Your task to perform on an android device: toggle improve location accuracy Image 0: 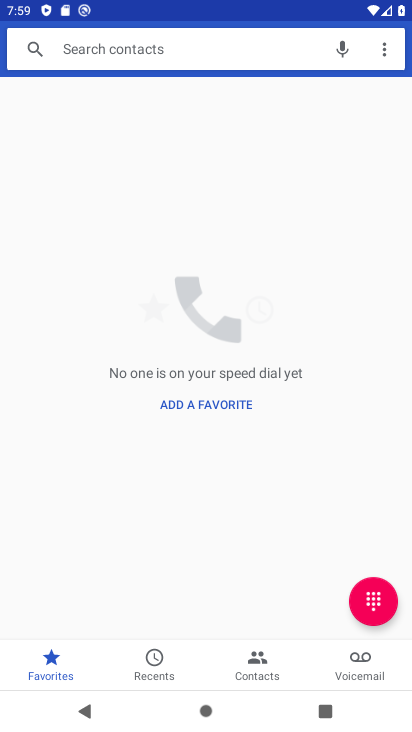
Step 0: press home button
Your task to perform on an android device: toggle improve location accuracy Image 1: 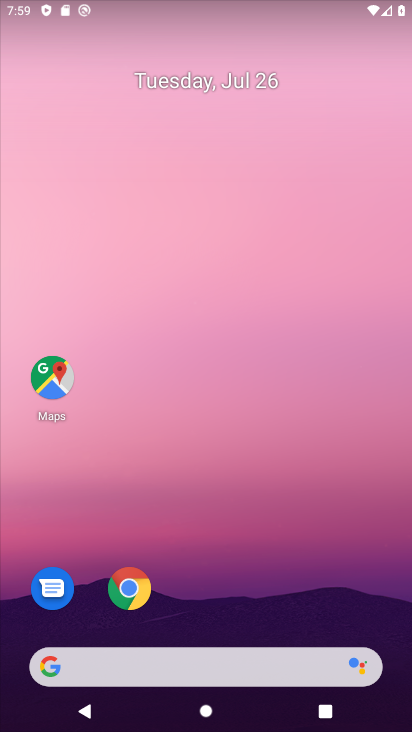
Step 1: drag from (278, 584) to (249, 146)
Your task to perform on an android device: toggle improve location accuracy Image 2: 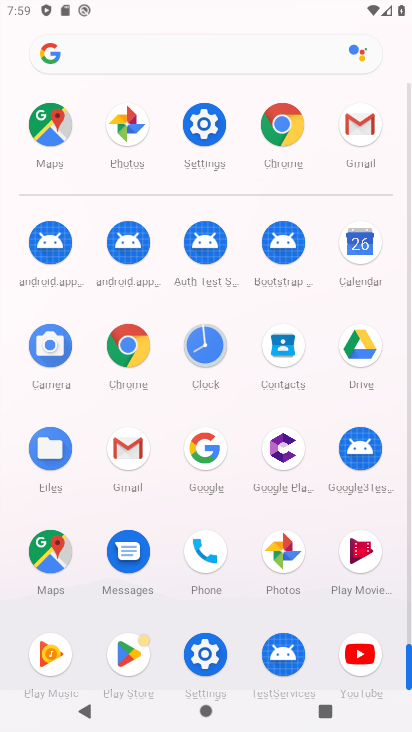
Step 2: click (208, 128)
Your task to perform on an android device: toggle improve location accuracy Image 3: 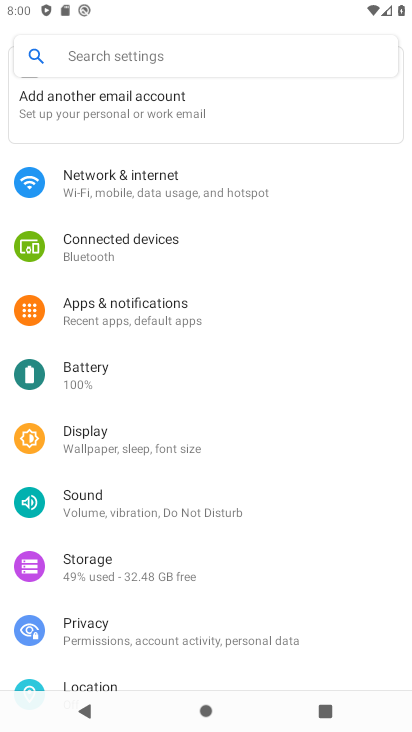
Step 3: drag from (145, 579) to (212, 120)
Your task to perform on an android device: toggle improve location accuracy Image 4: 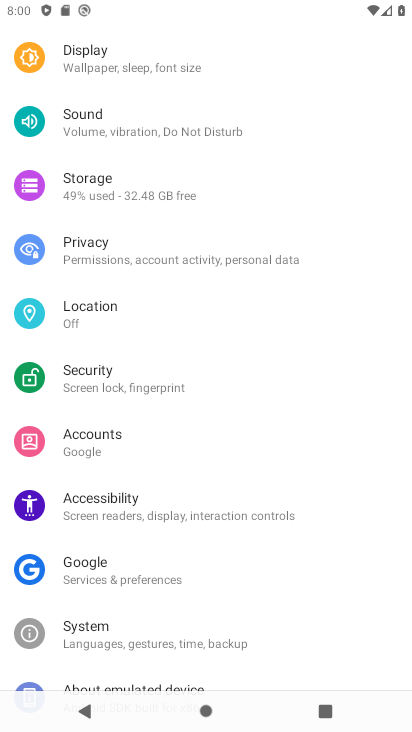
Step 4: click (127, 318)
Your task to perform on an android device: toggle improve location accuracy Image 5: 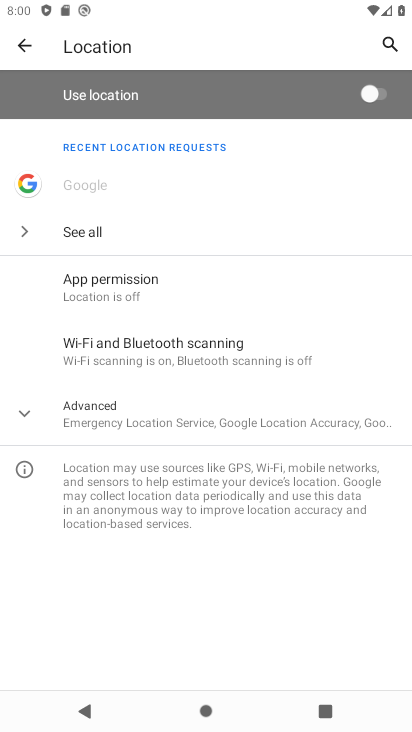
Step 5: click (155, 404)
Your task to perform on an android device: toggle improve location accuracy Image 6: 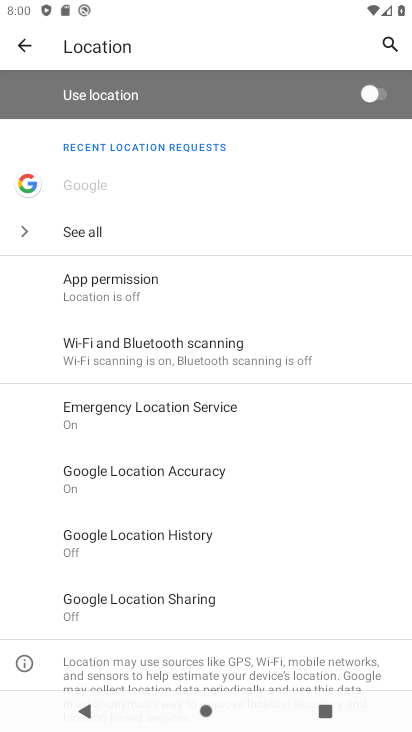
Step 6: click (183, 475)
Your task to perform on an android device: toggle improve location accuracy Image 7: 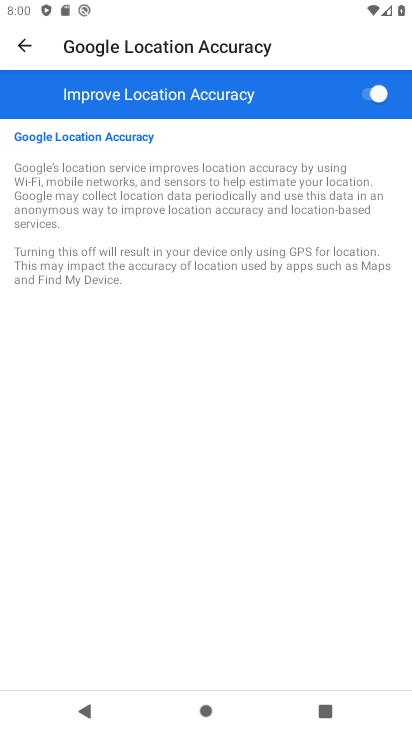
Step 7: click (308, 83)
Your task to perform on an android device: toggle improve location accuracy Image 8: 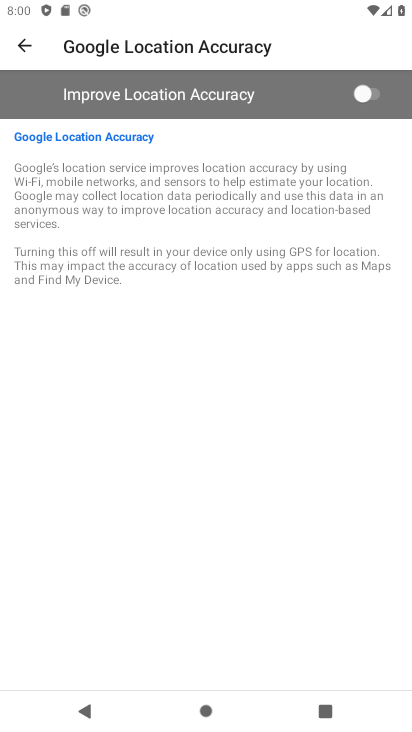
Step 8: task complete